Your task to perform on an android device: Show me popular videos on Youtube Image 0: 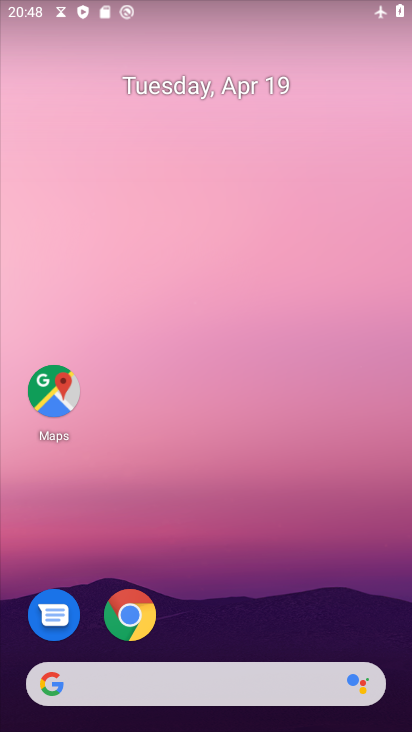
Step 0: drag from (373, 611) to (37, 207)
Your task to perform on an android device: Show me popular videos on Youtube Image 1: 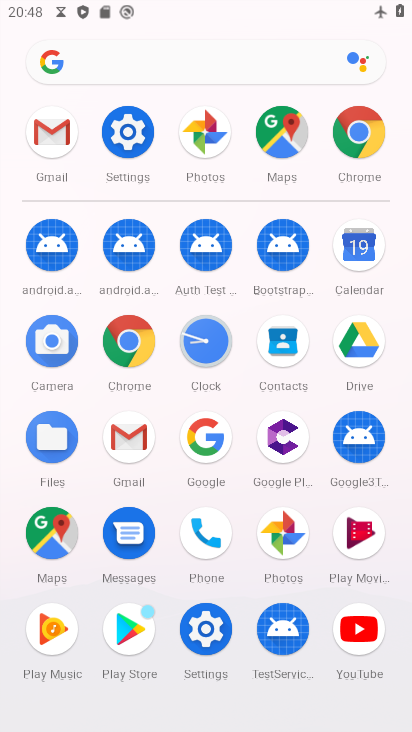
Step 1: click (364, 630)
Your task to perform on an android device: Show me popular videos on Youtube Image 2: 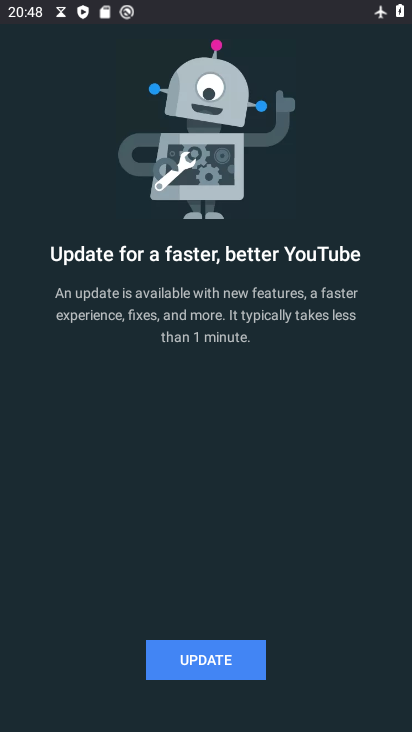
Step 2: click (227, 666)
Your task to perform on an android device: Show me popular videos on Youtube Image 3: 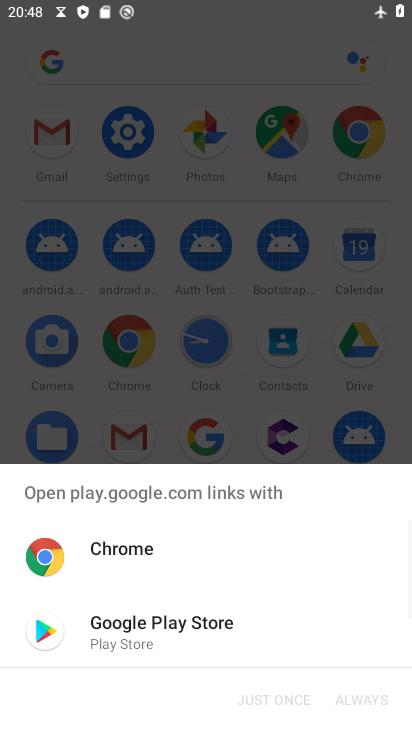
Step 3: click (195, 613)
Your task to perform on an android device: Show me popular videos on Youtube Image 4: 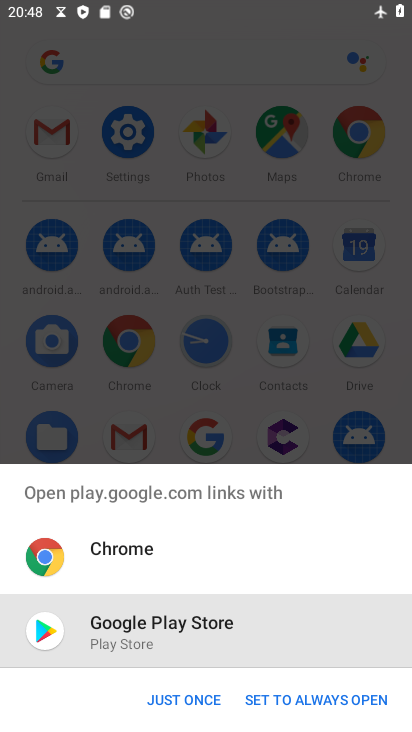
Step 4: click (214, 698)
Your task to perform on an android device: Show me popular videos on Youtube Image 5: 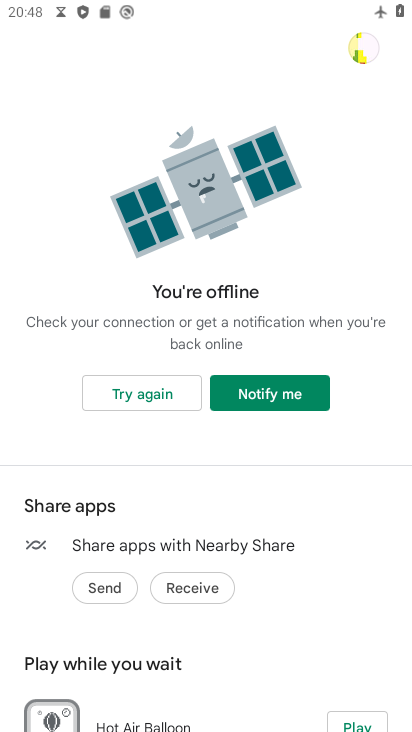
Step 5: task complete